Your task to perform on an android device: open app "Booking.com: Hotels and more" Image 0: 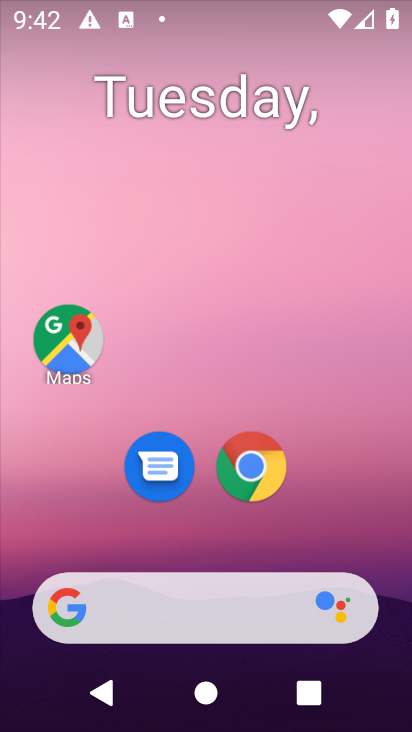
Step 0: drag from (184, 520) to (228, 11)
Your task to perform on an android device: open app "Booking.com: Hotels and more" Image 1: 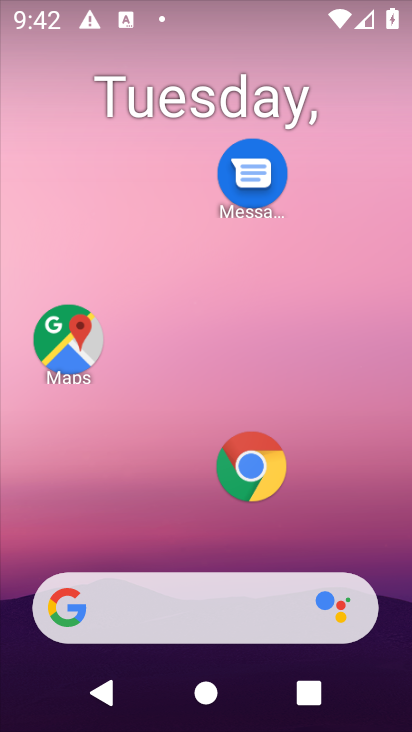
Step 1: drag from (149, 515) to (167, 1)
Your task to perform on an android device: open app "Booking.com: Hotels and more" Image 2: 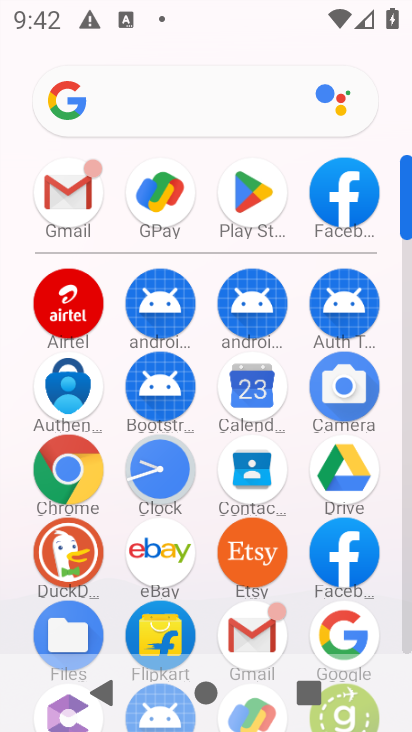
Step 2: click (247, 221)
Your task to perform on an android device: open app "Booking.com: Hotels and more" Image 3: 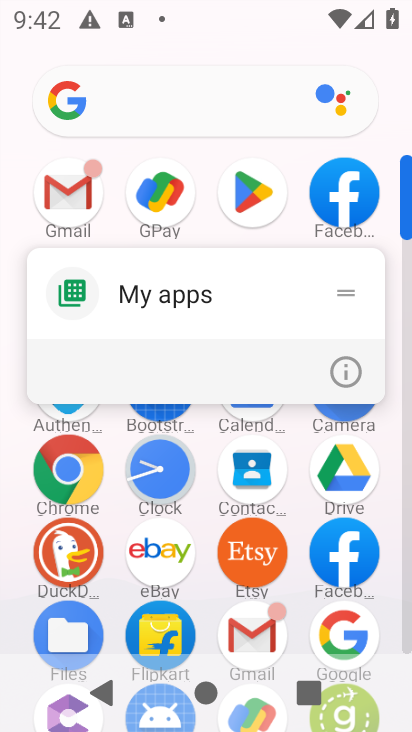
Step 3: click (247, 185)
Your task to perform on an android device: open app "Booking.com: Hotels and more" Image 4: 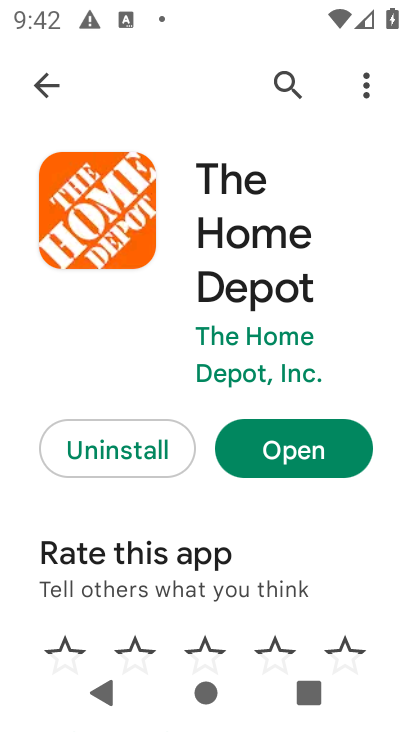
Step 4: click (284, 70)
Your task to perform on an android device: open app "Booking.com: Hotels and more" Image 5: 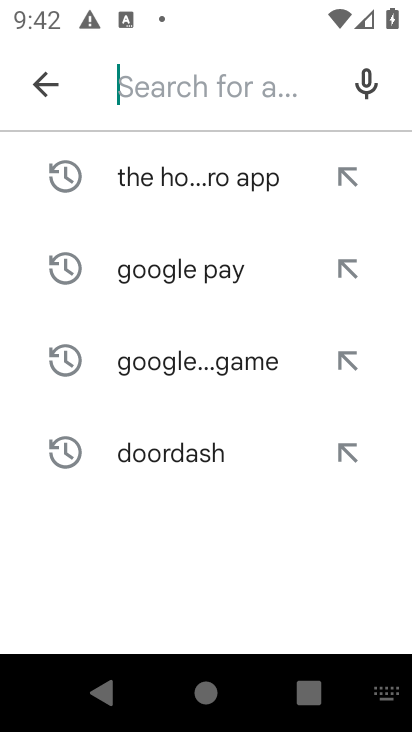
Step 5: click (165, 75)
Your task to perform on an android device: open app "Booking.com: Hotels and more" Image 6: 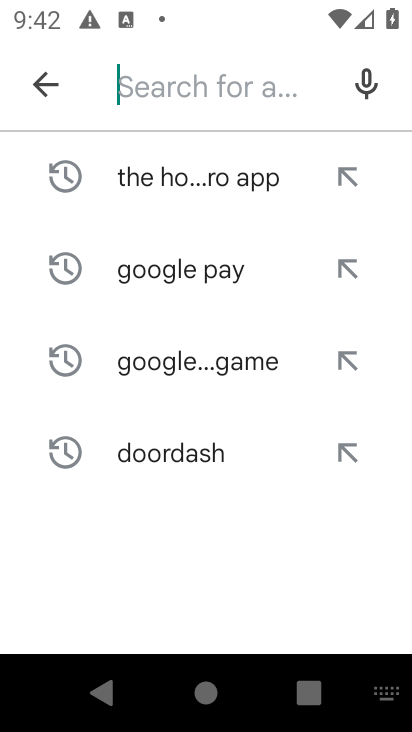
Step 6: type "Booking.com"
Your task to perform on an android device: open app "Booking.com: Hotels and more" Image 7: 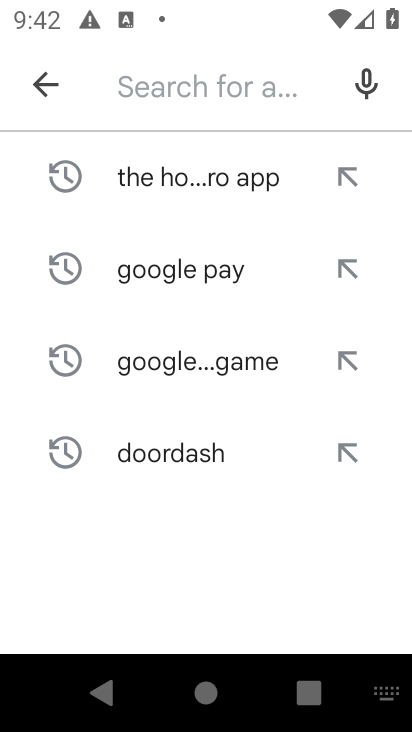
Step 7: click (91, 576)
Your task to perform on an android device: open app "Booking.com: Hotels and more" Image 8: 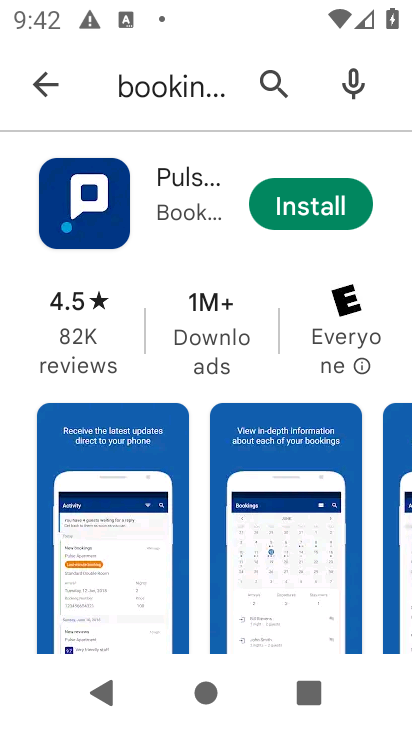
Step 8: task complete